Your task to perform on an android device: Do I have any events today? Image 0: 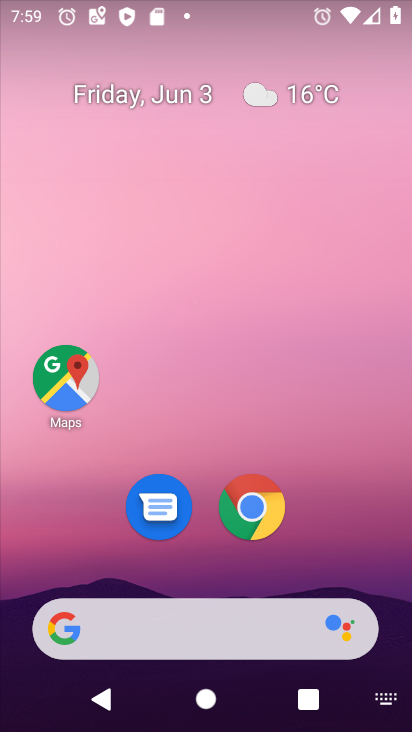
Step 0: click (119, 84)
Your task to perform on an android device: Do I have any events today? Image 1: 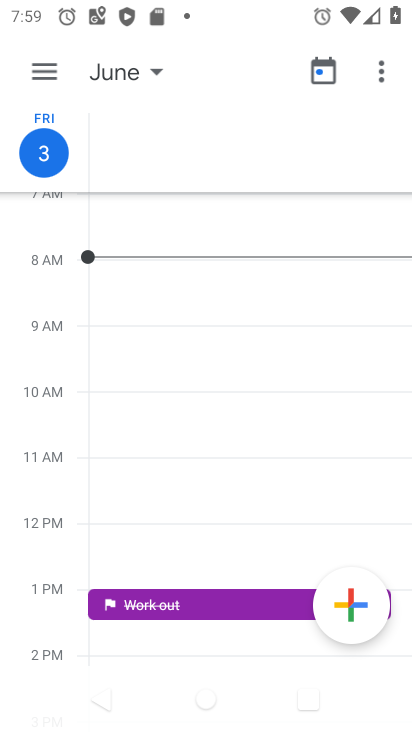
Step 1: click (148, 77)
Your task to perform on an android device: Do I have any events today? Image 2: 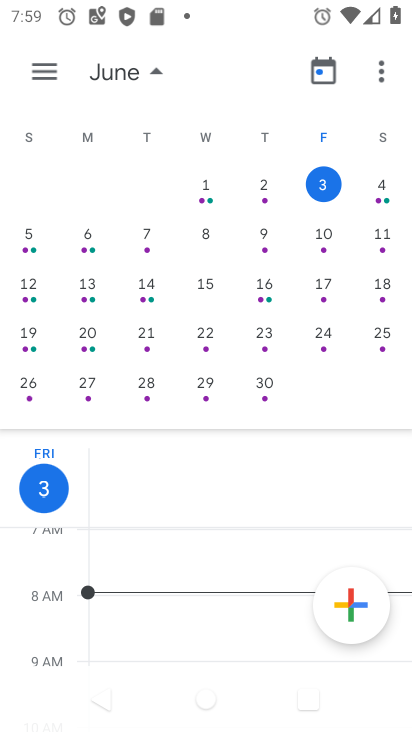
Step 2: click (146, 70)
Your task to perform on an android device: Do I have any events today? Image 3: 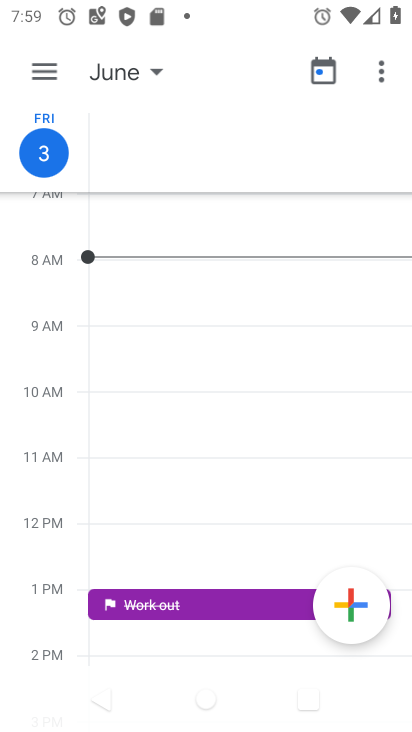
Step 3: task complete